Your task to perform on an android device: Go to internet settings Image 0: 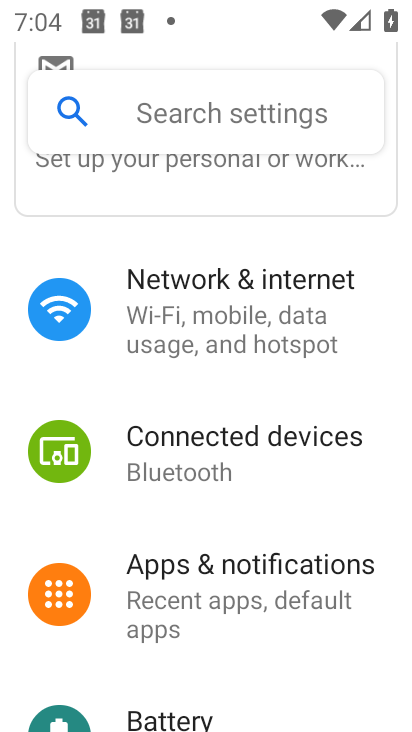
Step 0: click (228, 353)
Your task to perform on an android device: Go to internet settings Image 1: 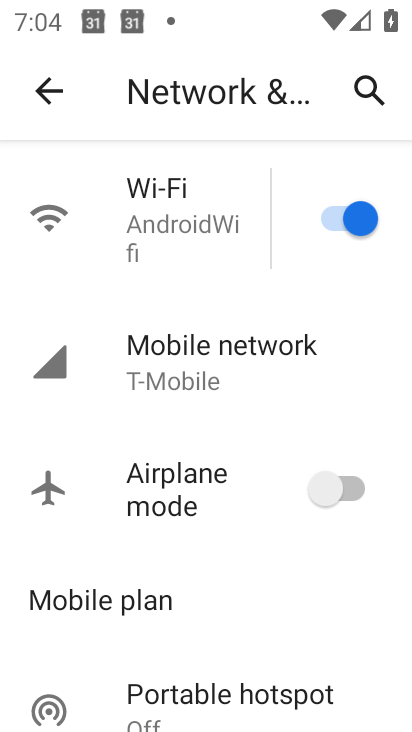
Step 1: task complete